Your task to perform on an android device: install app "Move to iOS" Image 0: 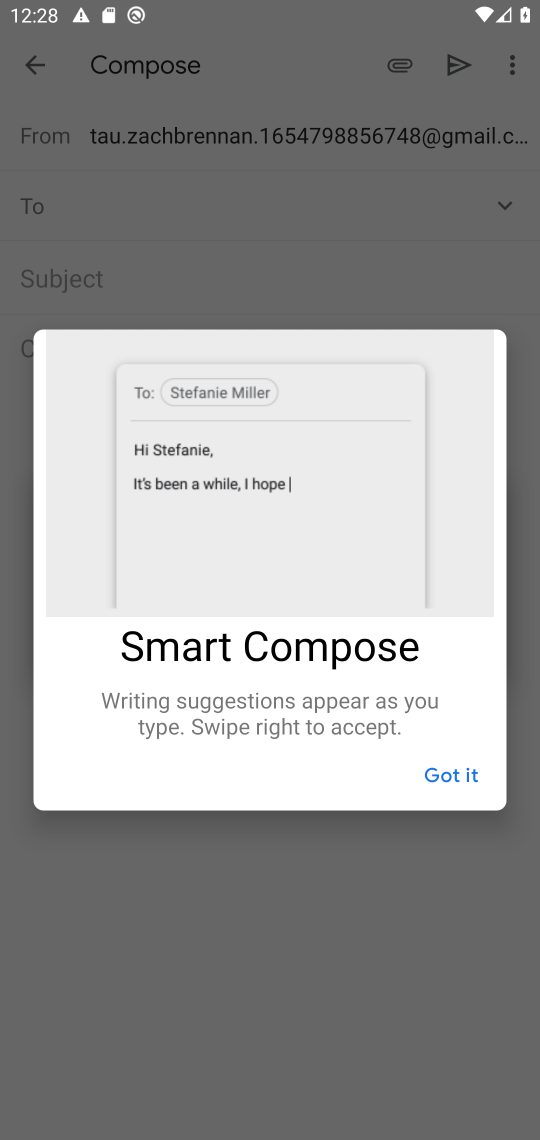
Step 0: press home button
Your task to perform on an android device: install app "Move to iOS" Image 1: 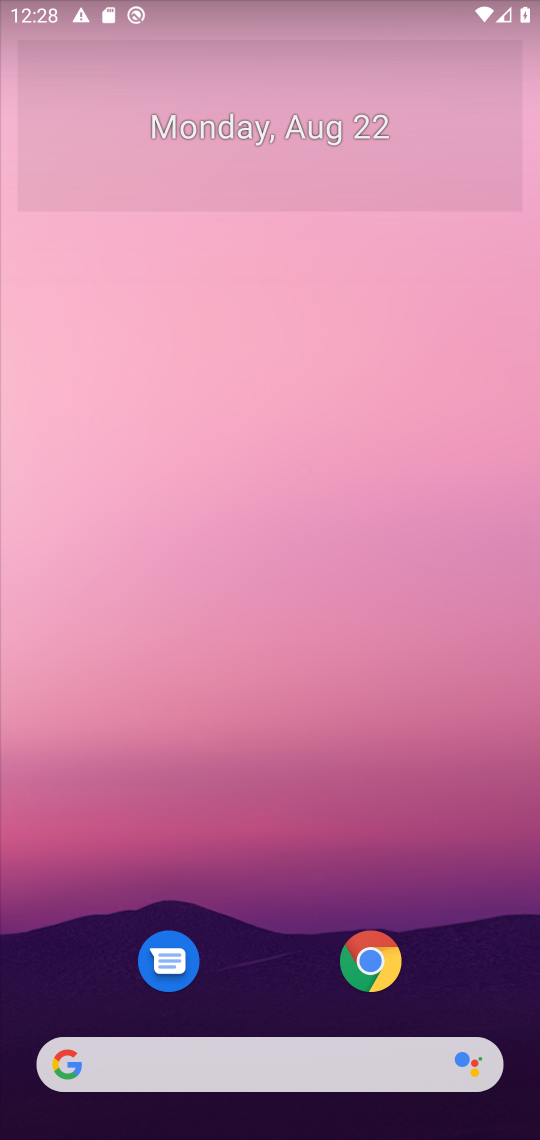
Step 1: drag from (468, 884) to (493, 150)
Your task to perform on an android device: install app "Move to iOS" Image 2: 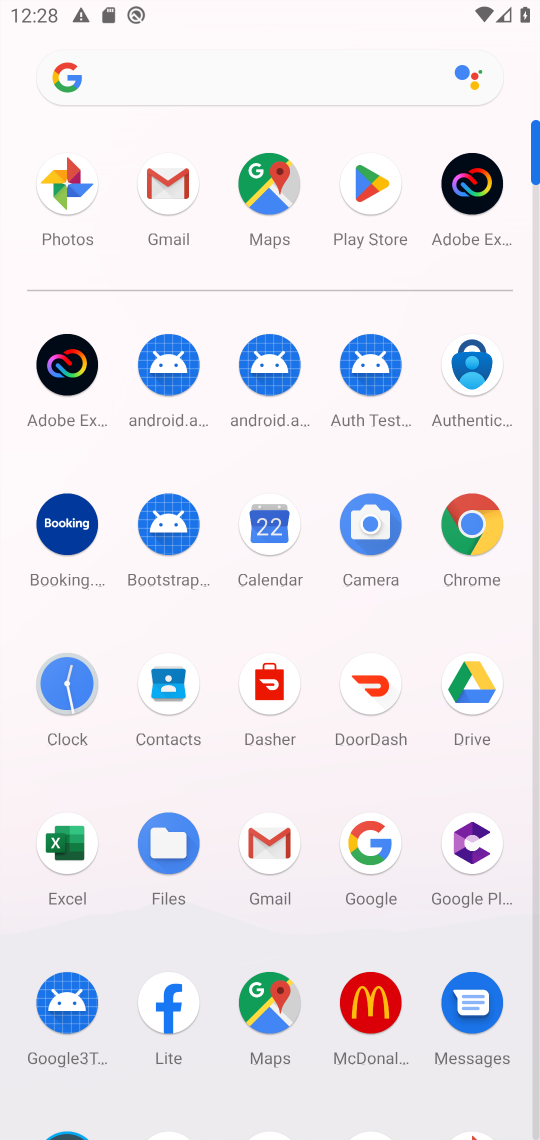
Step 2: click (367, 205)
Your task to perform on an android device: install app "Move to iOS" Image 3: 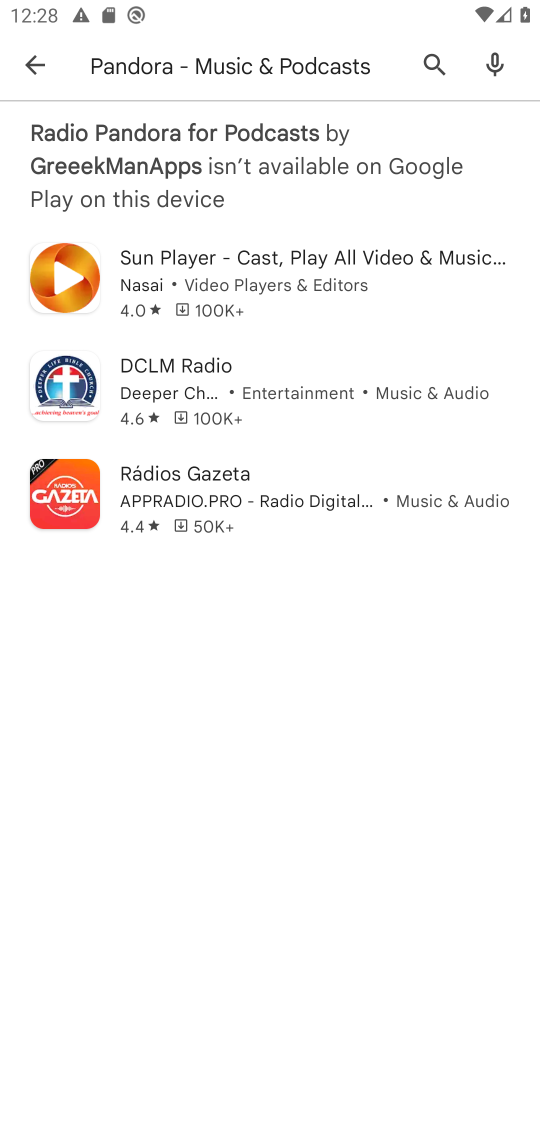
Step 3: press back button
Your task to perform on an android device: install app "Move to iOS" Image 4: 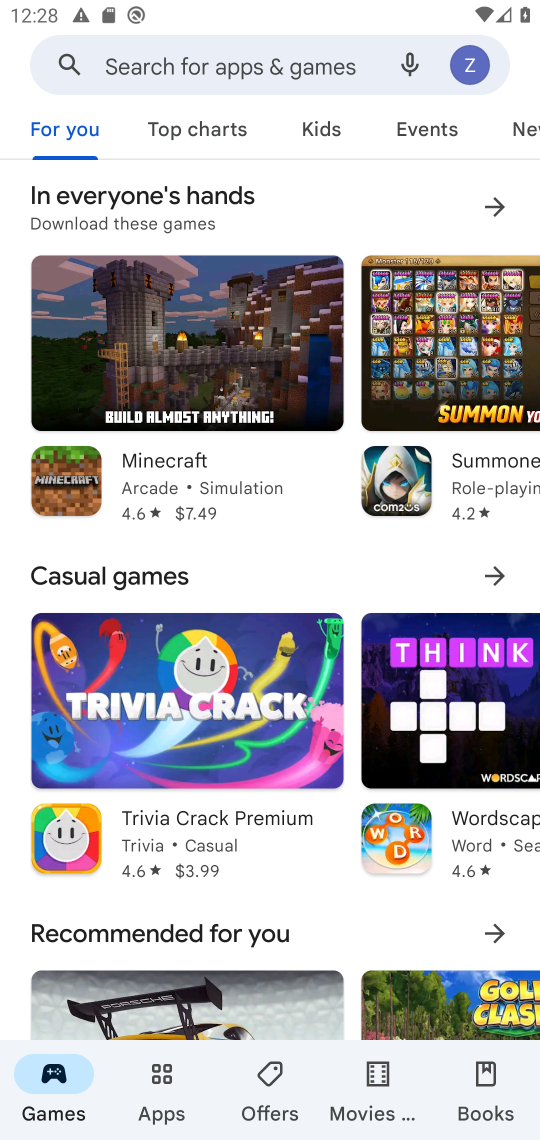
Step 4: click (327, 64)
Your task to perform on an android device: install app "Move to iOS" Image 5: 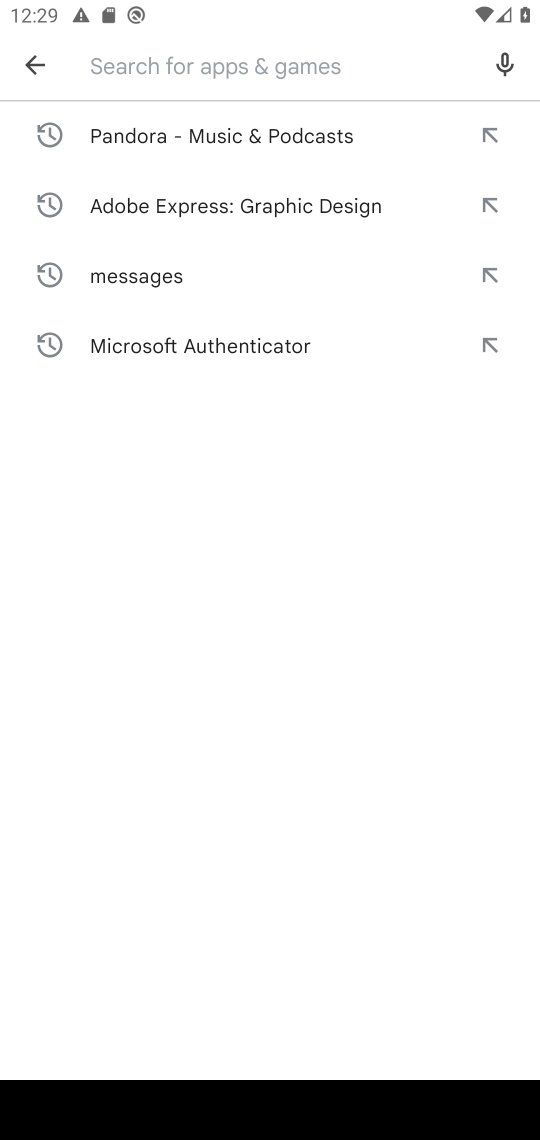
Step 5: type "Move to iOS"
Your task to perform on an android device: install app "Move to iOS" Image 6: 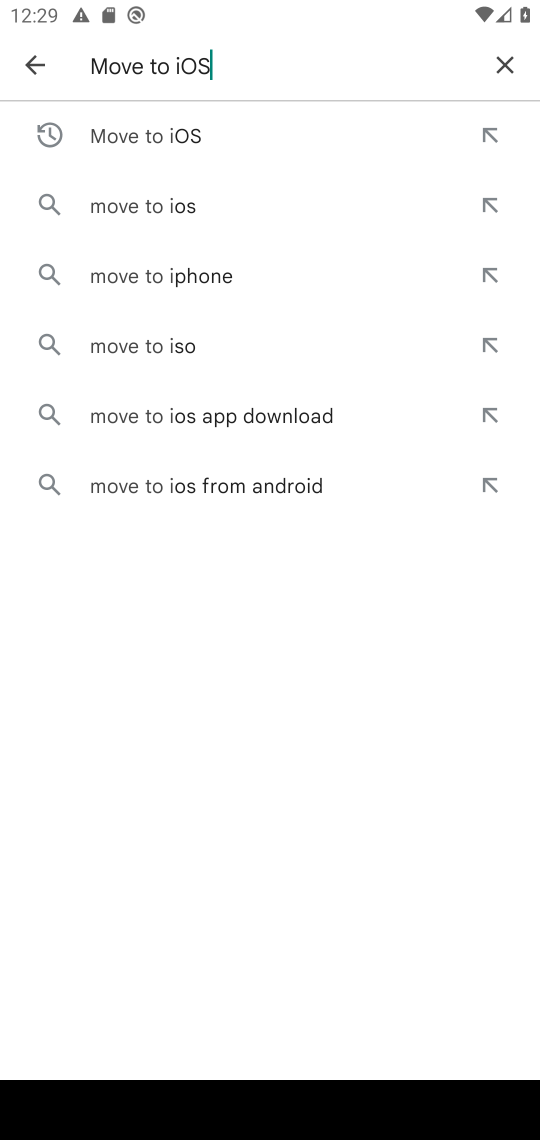
Step 6: press enter
Your task to perform on an android device: install app "Move to iOS" Image 7: 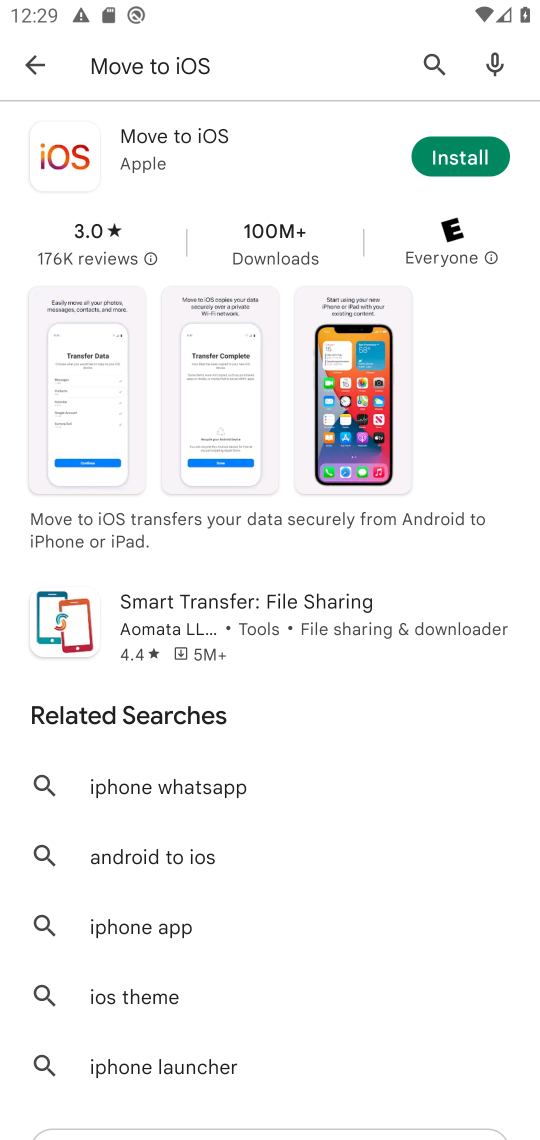
Step 7: click (462, 157)
Your task to perform on an android device: install app "Move to iOS" Image 8: 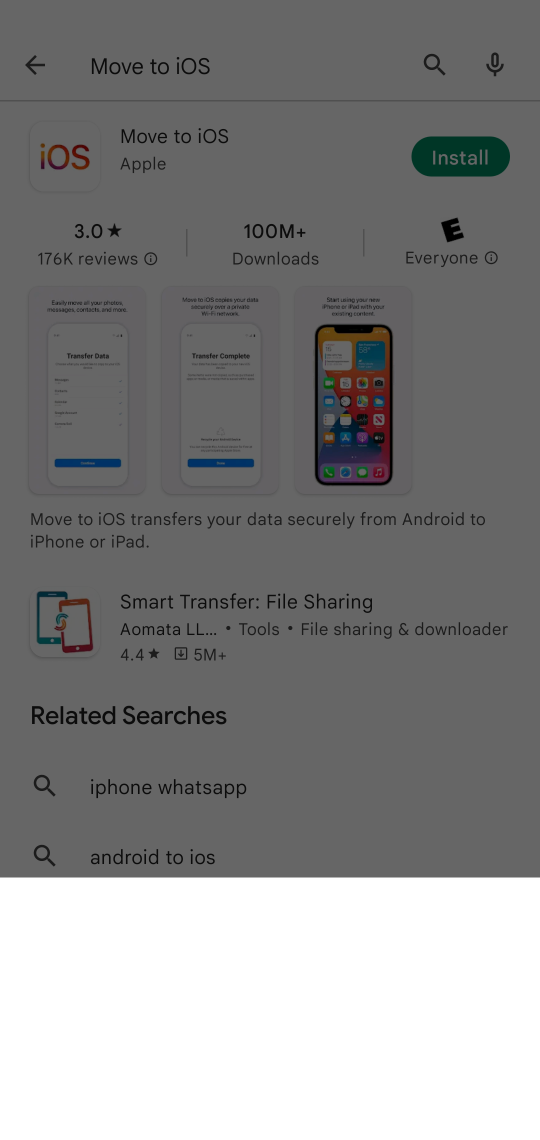
Step 8: task complete